Your task to perform on an android device: set default search engine in the chrome app Image 0: 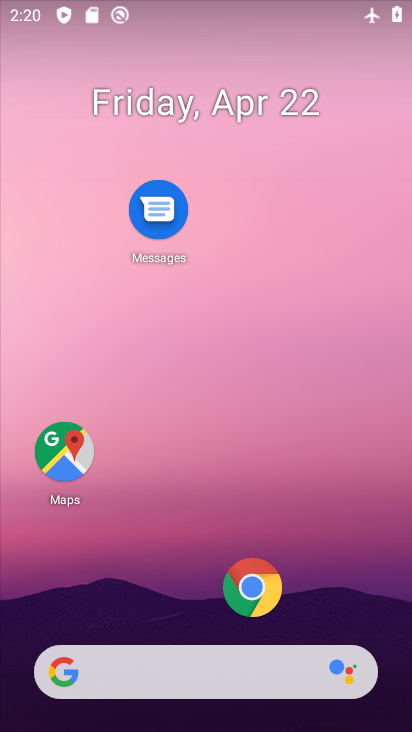
Step 0: click (255, 586)
Your task to perform on an android device: set default search engine in the chrome app Image 1: 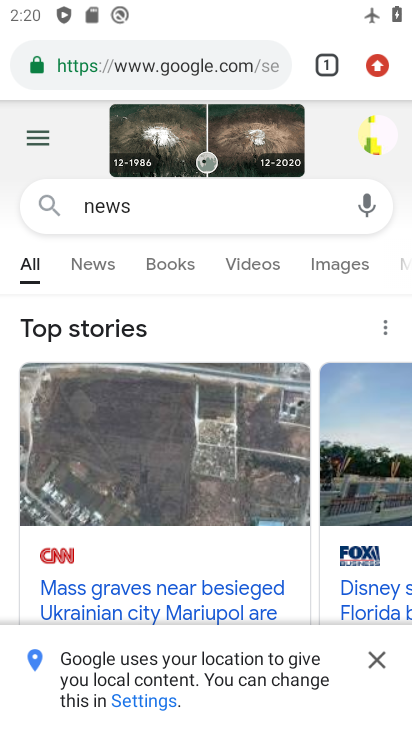
Step 1: click (381, 61)
Your task to perform on an android device: set default search engine in the chrome app Image 2: 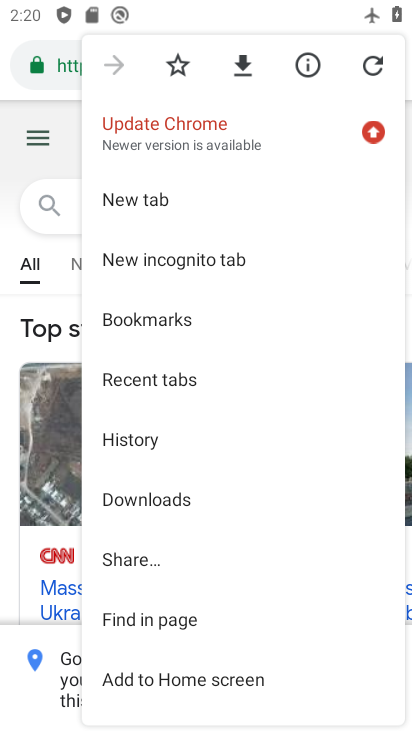
Step 2: drag from (179, 530) to (274, 120)
Your task to perform on an android device: set default search engine in the chrome app Image 3: 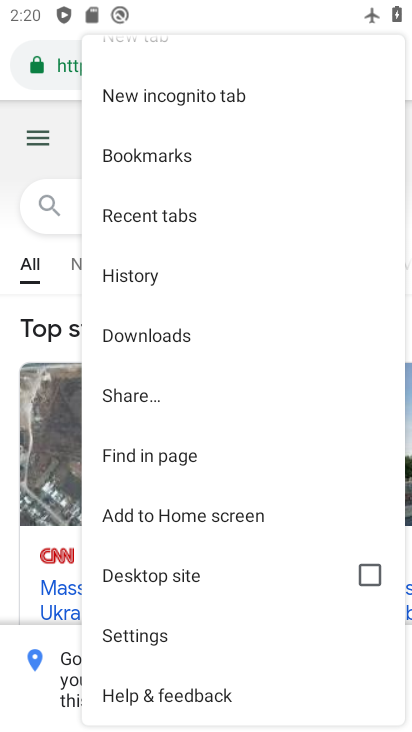
Step 3: click (153, 641)
Your task to perform on an android device: set default search engine in the chrome app Image 4: 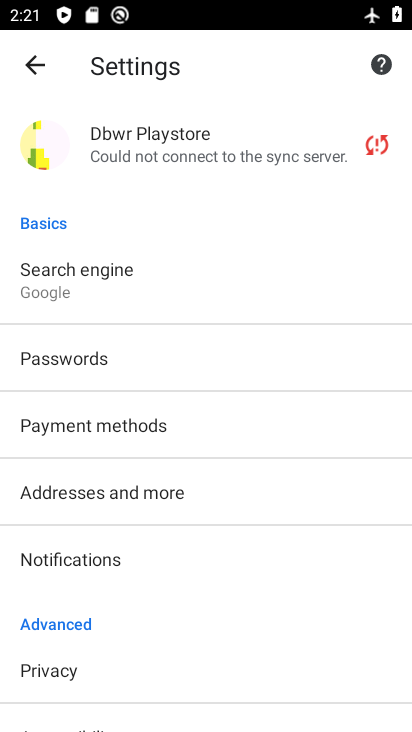
Step 4: click (92, 280)
Your task to perform on an android device: set default search engine in the chrome app Image 5: 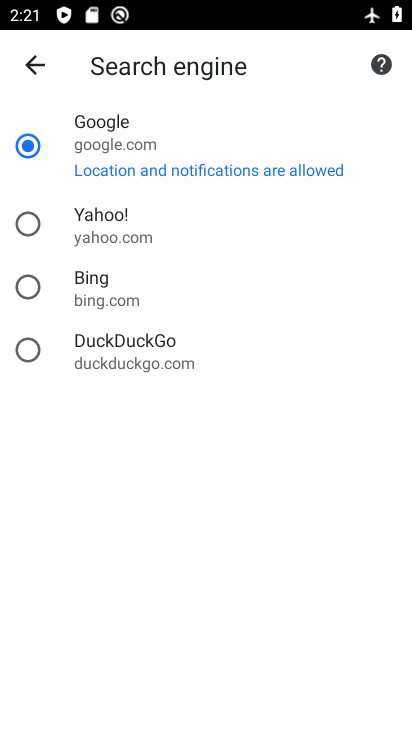
Step 5: task complete